Your task to perform on an android device: turn off improve location accuracy Image 0: 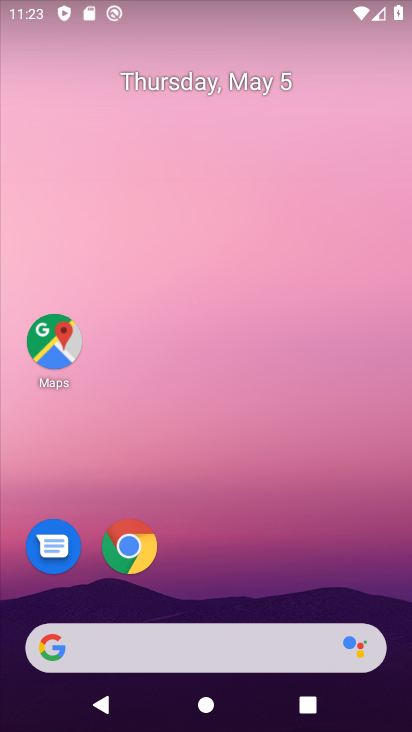
Step 0: drag from (163, 510) to (406, 211)
Your task to perform on an android device: turn off improve location accuracy Image 1: 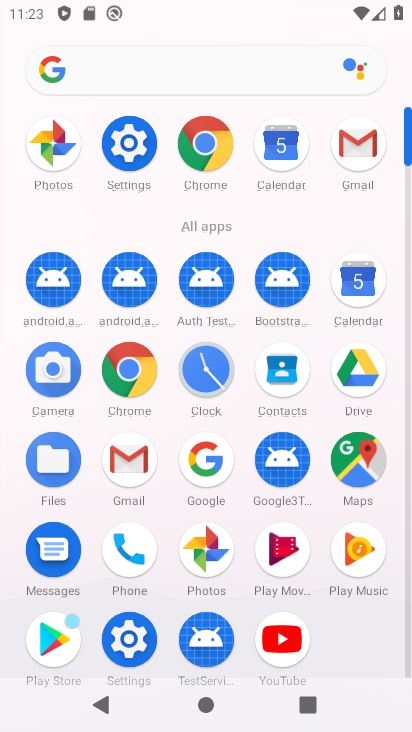
Step 1: click (120, 149)
Your task to perform on an android device: turn off improve location accuracy Image 2: 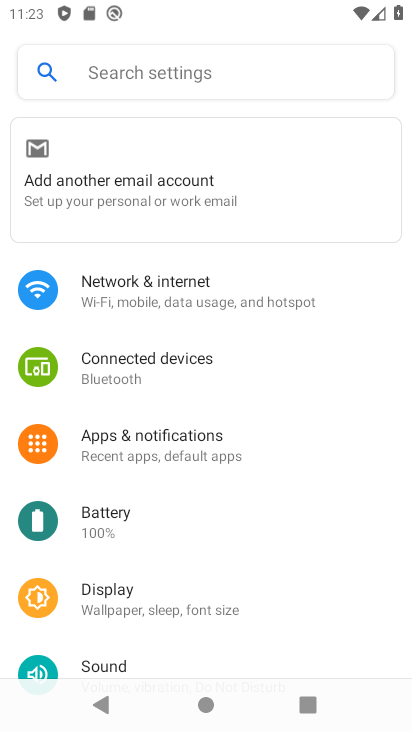
Step 2: drag from (125, 627) to (279, 258)
Your task to perform on an android device: turn off improve location accuracy Image 3: 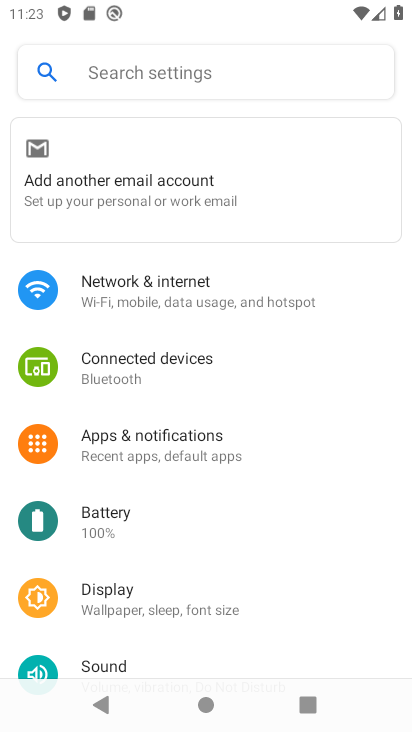
Step 3: drag from (60, 650) to (310, 288)
Your task to perform on an android device: turn off improve location accuracy Image 4: 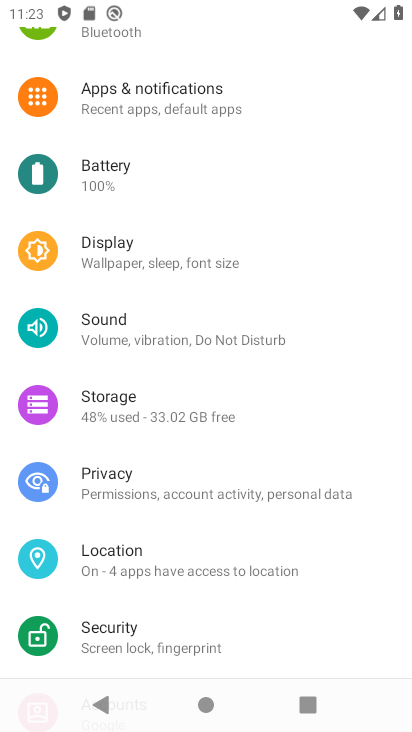
Step 4: click (167, 553)
Your task to perform on an android device: turn off improve location accuracy Image 5: 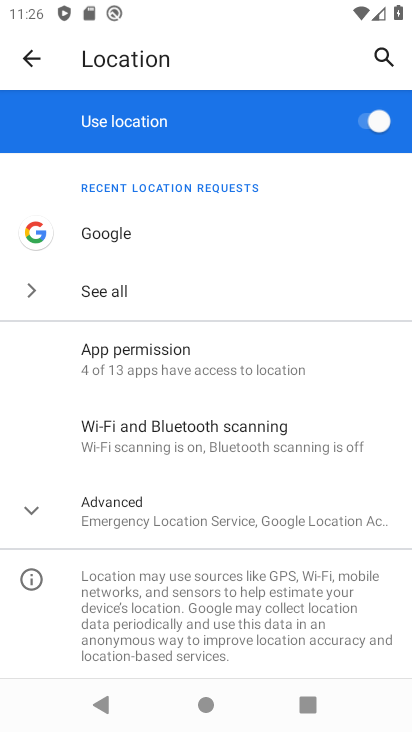
Step 5: click (220, 524)
Your task to perform on an android device: turn off improve location accuracy Image 6: 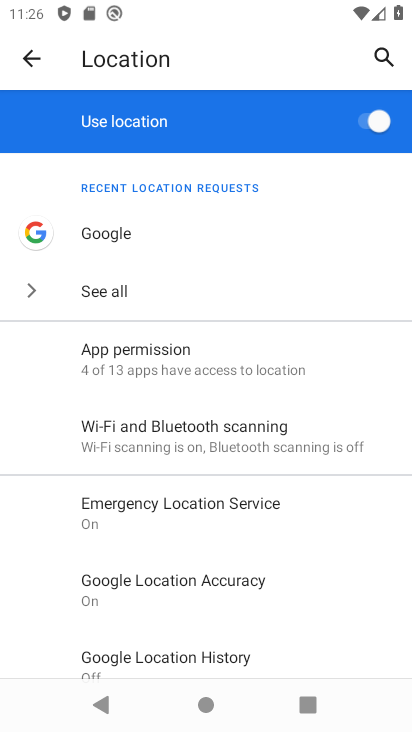
Step 6: click (218, 505)
Your task to perform on an android device: turn off improve location accuracy Image 7: 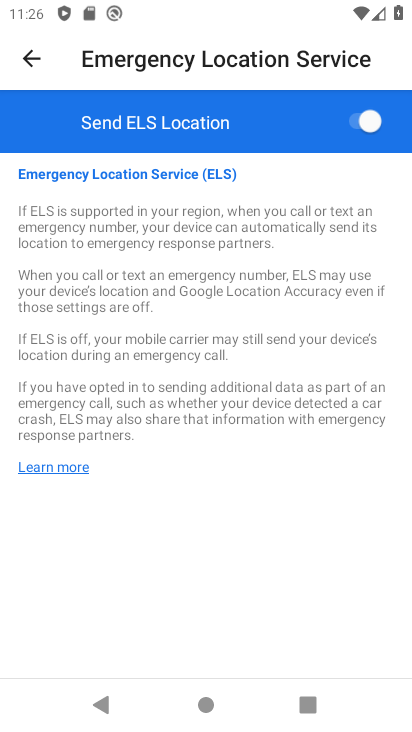
Step 7: task complete